Your task to perform on an android device: Go to notification settings Image 0: 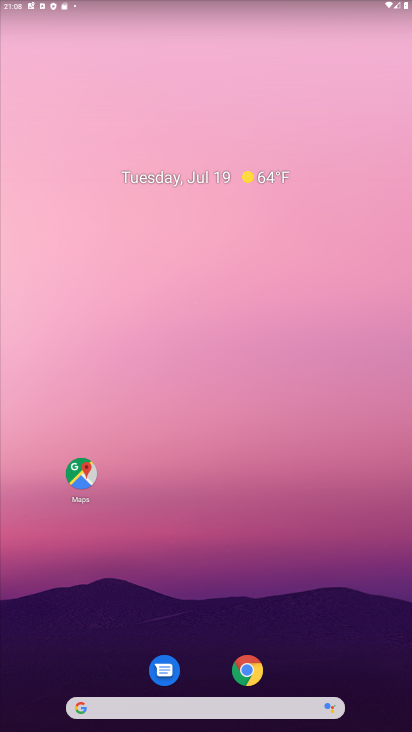
Step 0: drag from (120, 714) to (122, 41)
Your task to perform on an android device: Go to notification settings Image 1: 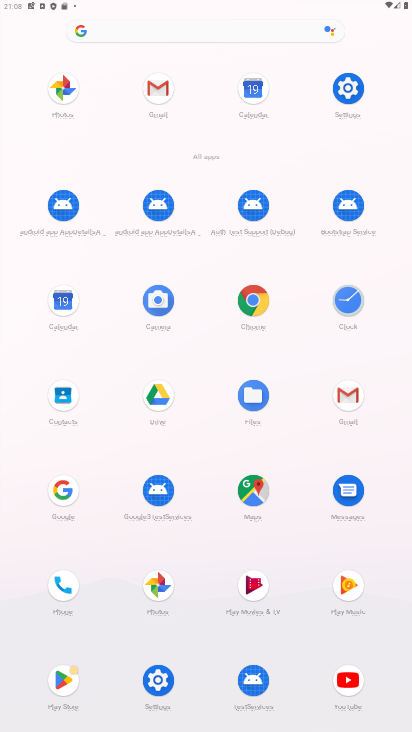
Step 1: click (353, 92)
Your task to perform on an android device: Go to notification settings Image 2: 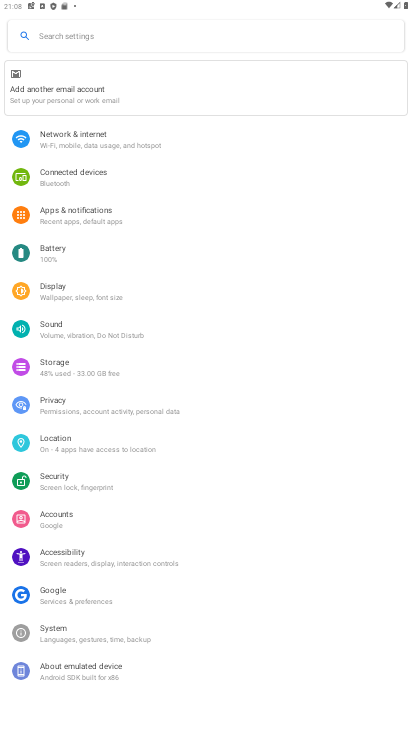
Step 2: click (121, 224)
Your task to perform on an android device: Go to notification settings Image 3: 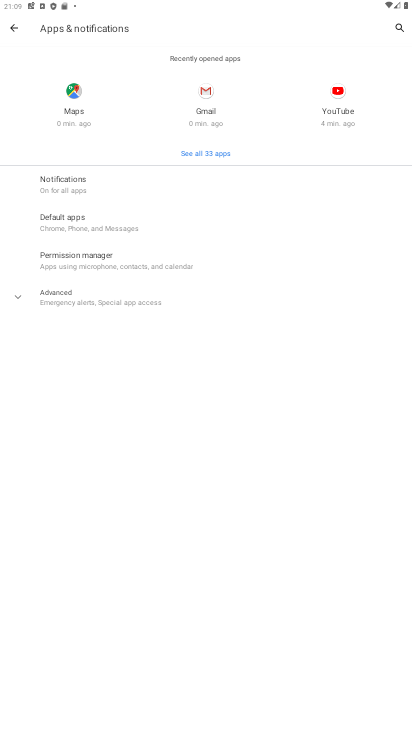
Step 3: task complete